Your task to perform on an android device: Open Google Chrome and open the bookmarks view Image 0: 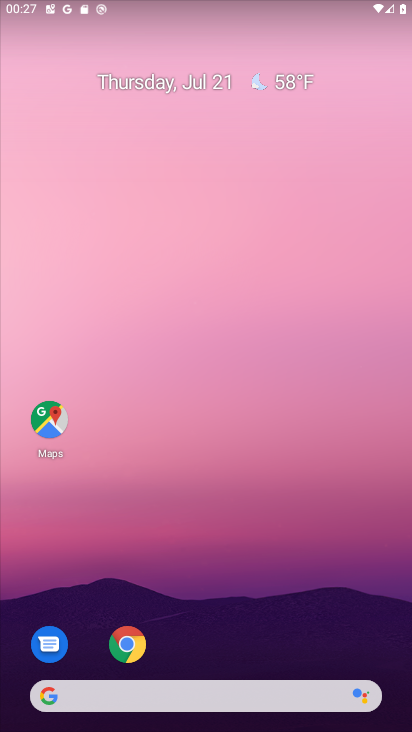
Step 0: click (115, 637)
Your task to perform on an android device: Open Google Chrome and open the bookmarks view Image 1: 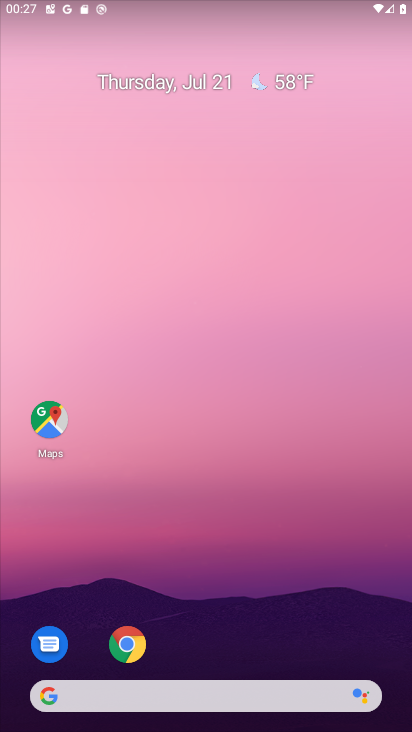
Step 1: click (115, 637)
Your task to perform on an android device: Open Google Chrome and open the bookmarks view Image 2: 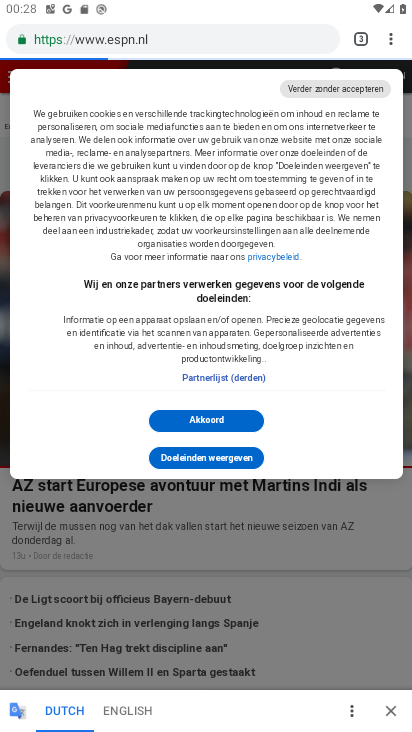
Step 2: click (392, 33)
Your task to perform on an android device: Open Google Chrome and open the bookmarks view Image 3: 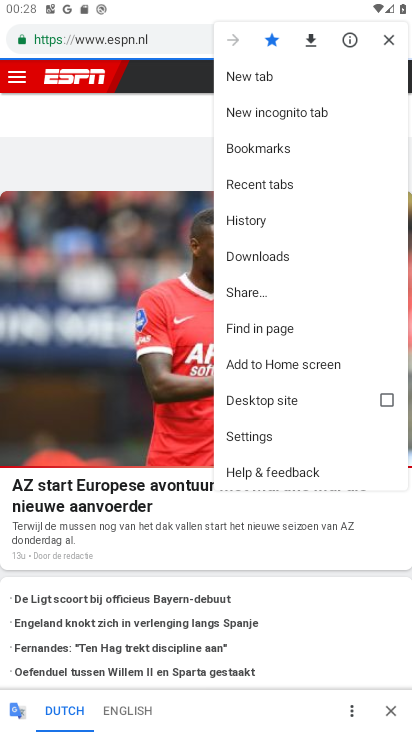
Step 3: click (291, 148)
Your task to perform on an android device: Open Google Chrome and open the bookmarks view Image 4: 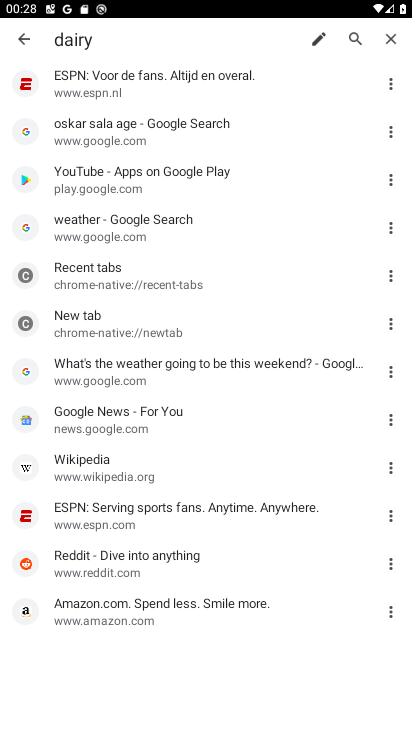
Step 4: task complete